Your task to perform on an android device: turn off wifi Image 0: 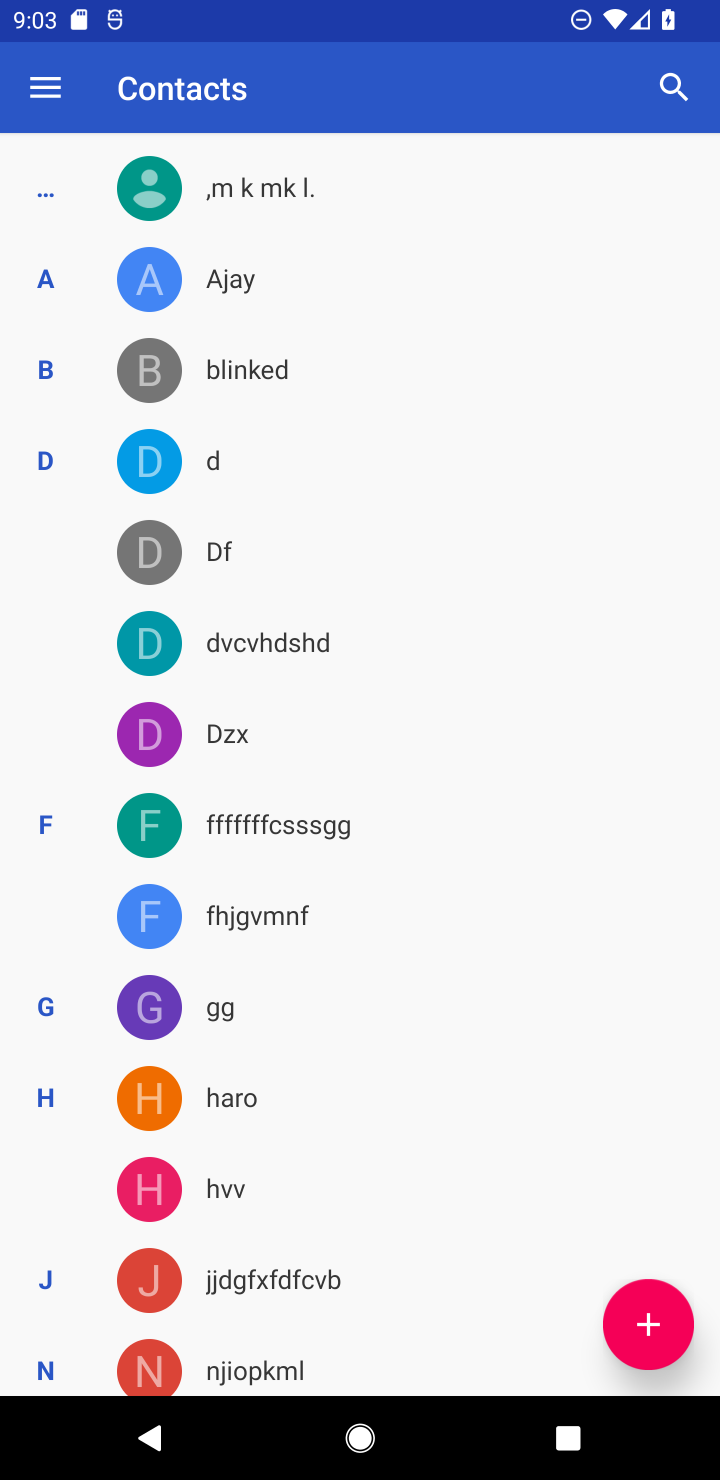
Step 0: press home button
Your task to perform on an android device: turn off wifi Image 1: 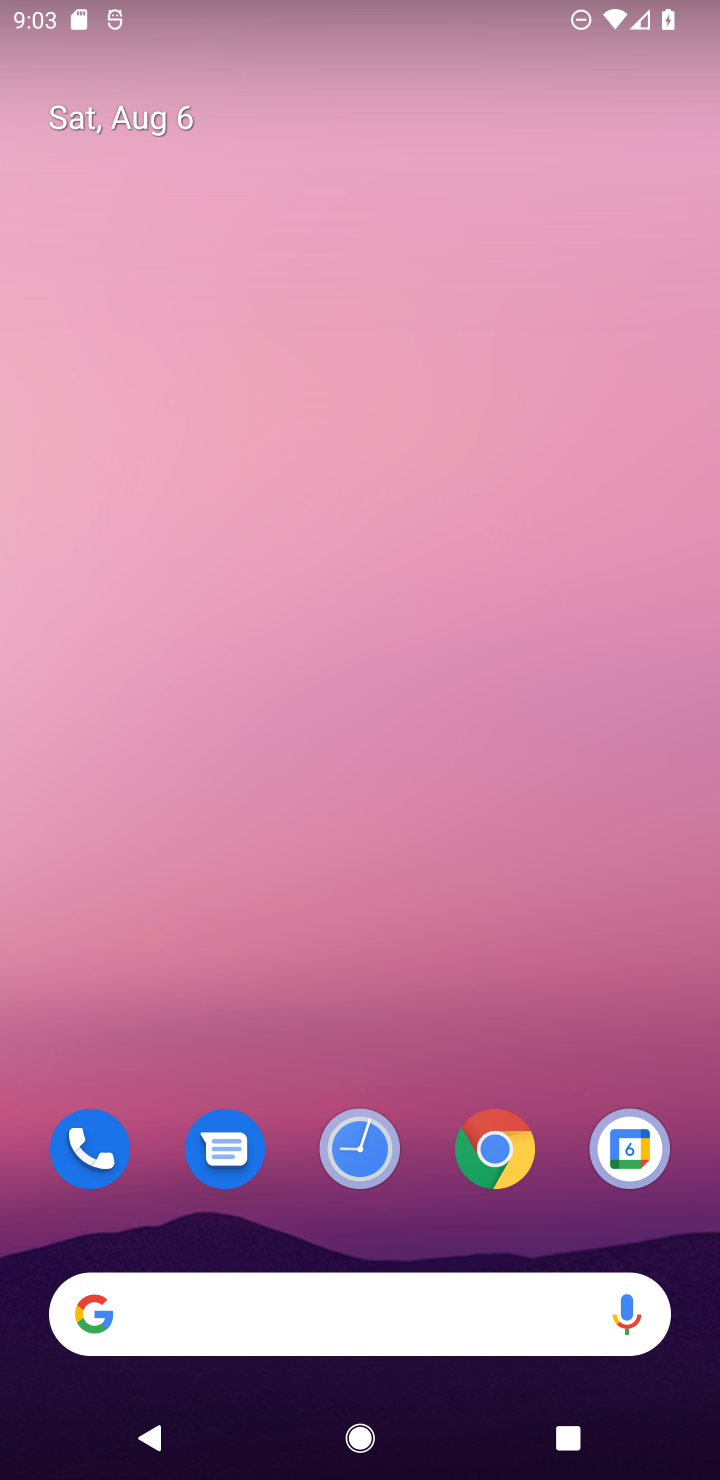
Step 1: drag from (283, 441) to (248, 59)
Your task to perform on an android device: turn off wifi Image 2: 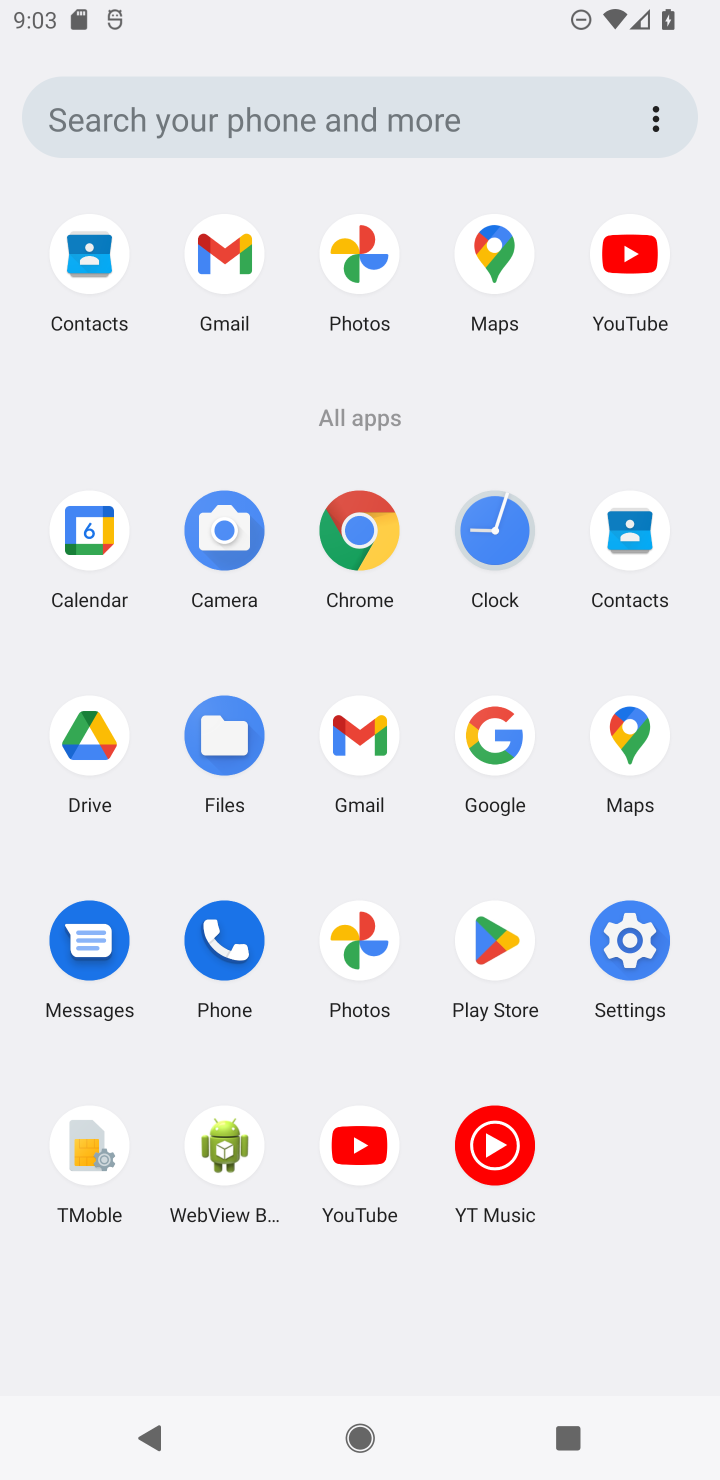
Step 2: drag from (248, 59) to (310, 517)
Your task to perform on an android device: turn off wifi Image 3: 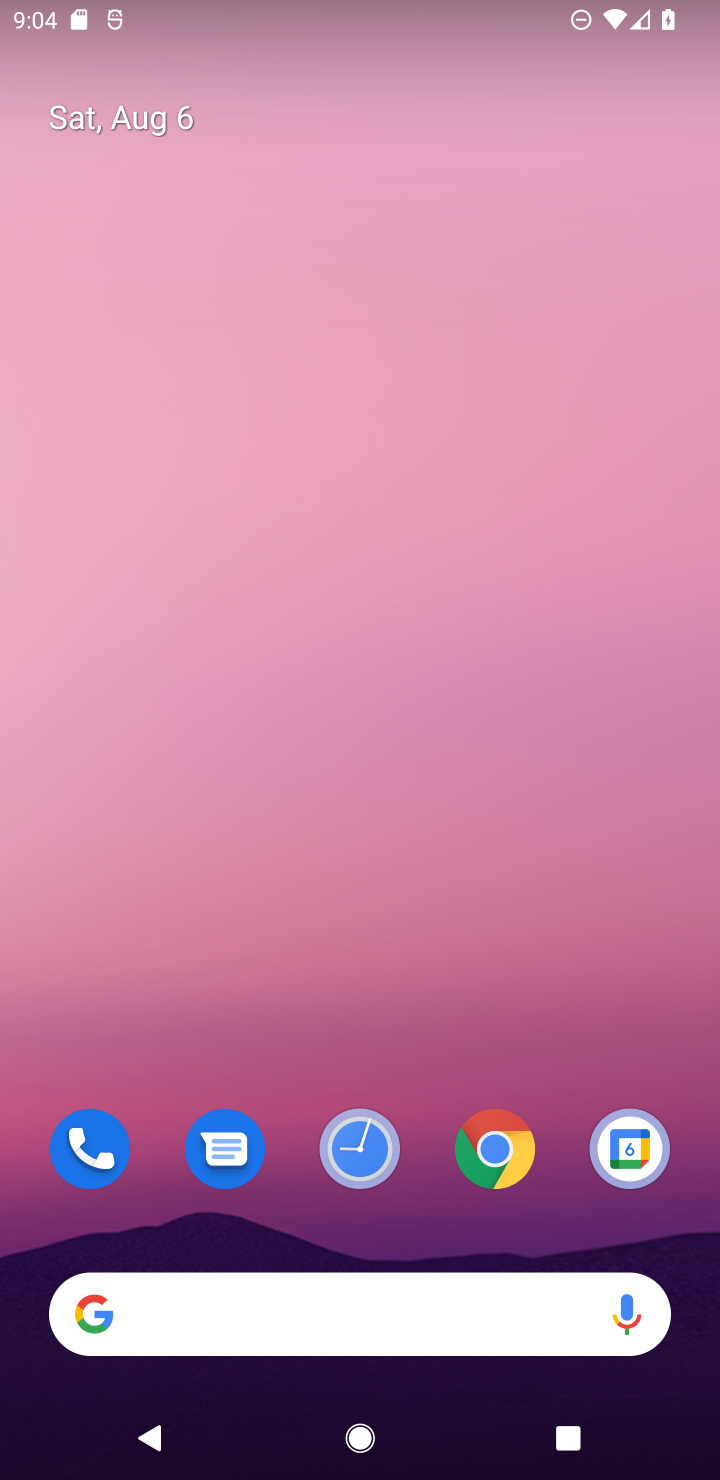
Step 3: drag from (305, 608) to (268, 191)
Your task to perform on an android device: turn off wifi Image 4: 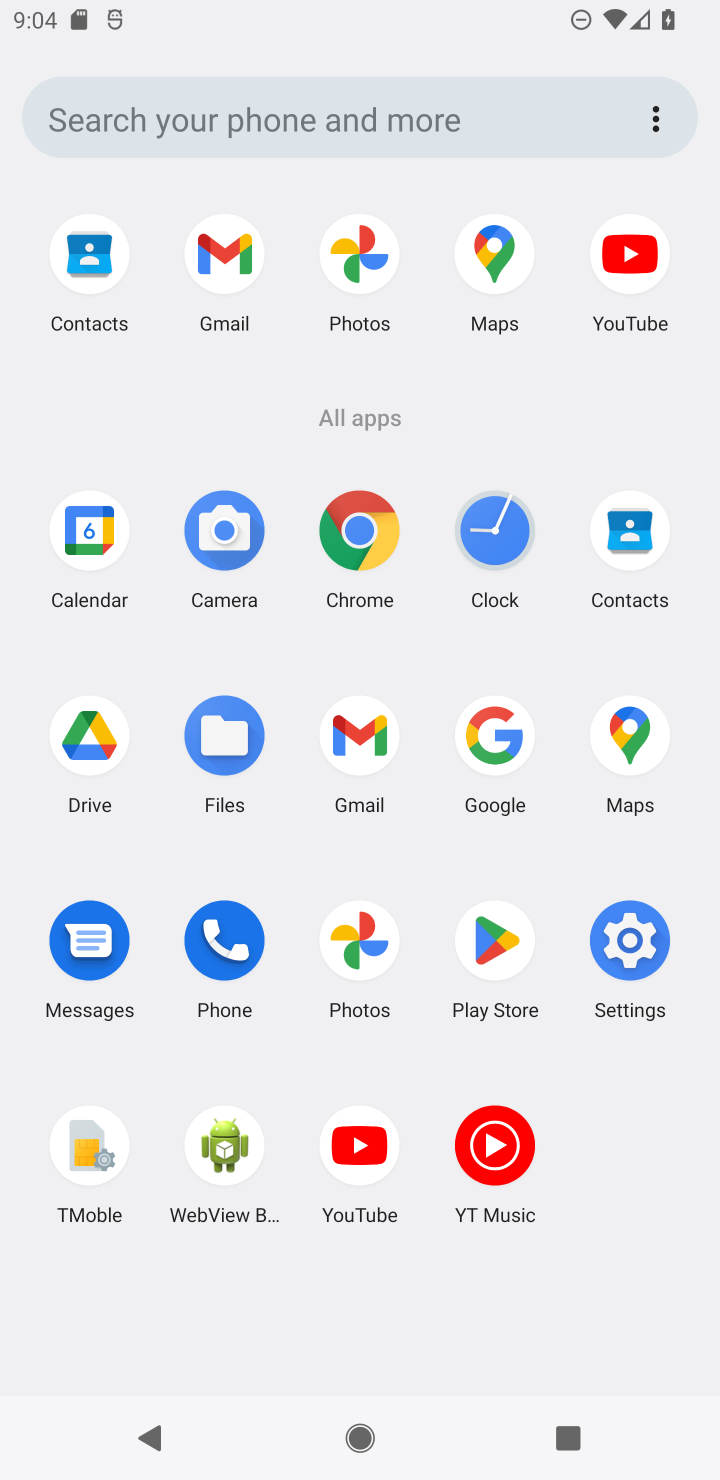
Step 4: click (610, 942)
Your task to perform on an android device: turn off wifi Image 5: 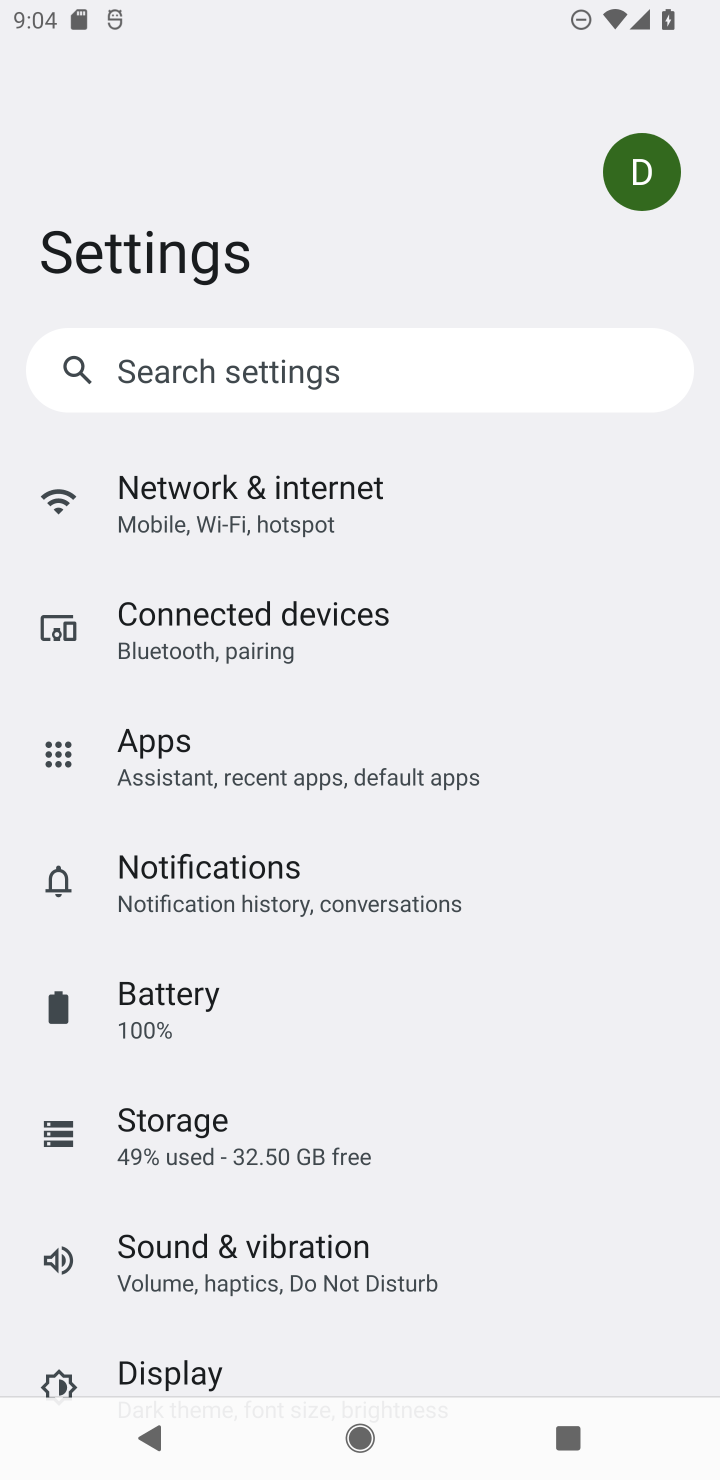
Step 5: click (328, 489)
Your task to perform on an android device: turn off wifi Image 6: 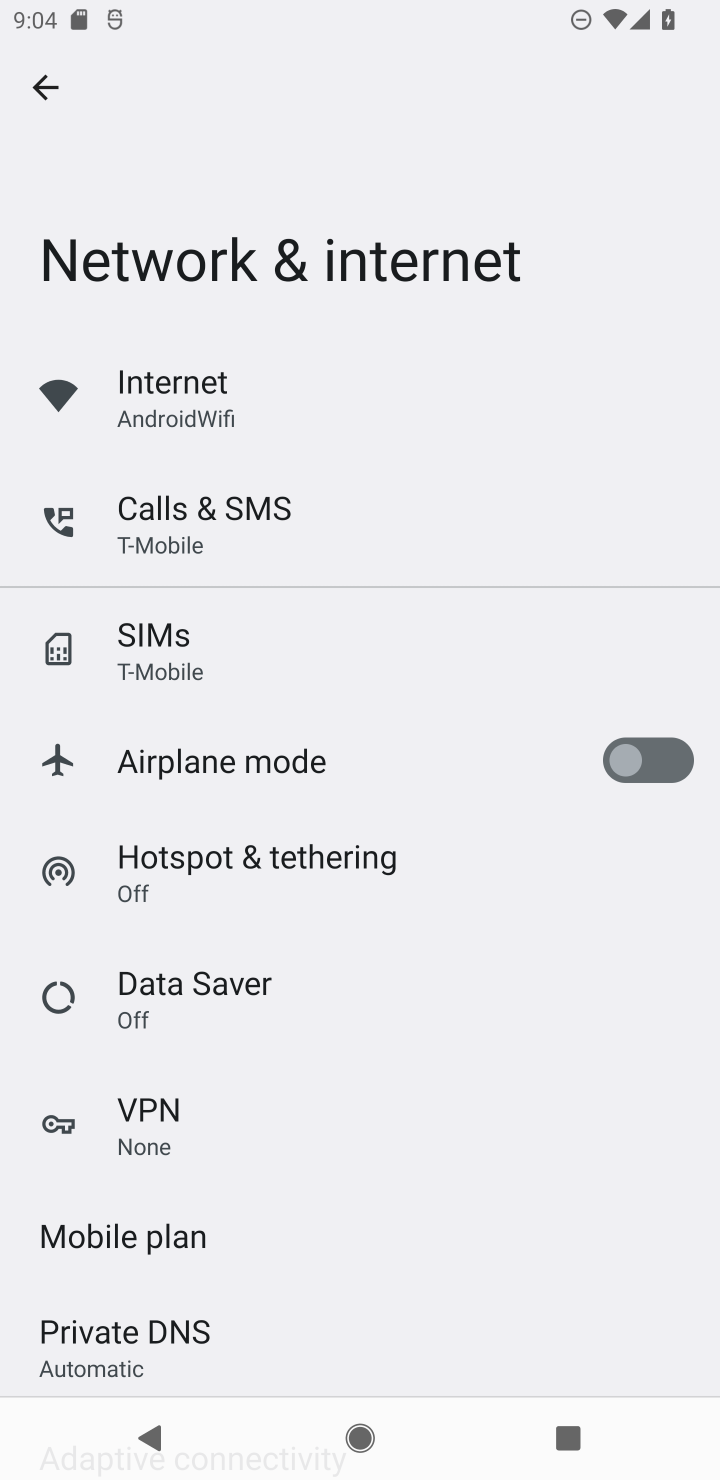
Step 6: click (327, 411)
Your task to perform on an android device: turn off wifi Image 7: 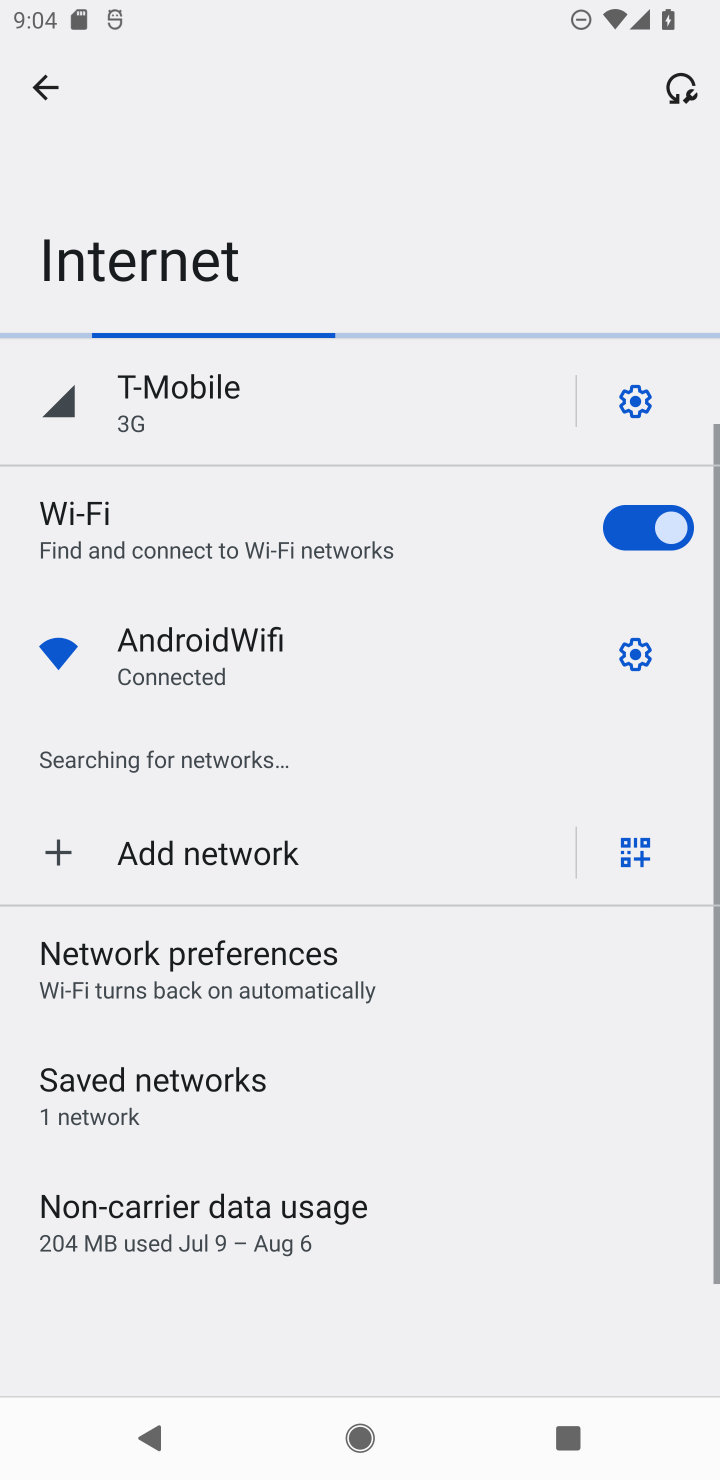
Step 7: click (645, 531)
Your task to perform on an android device: turn off wifi Image 8: 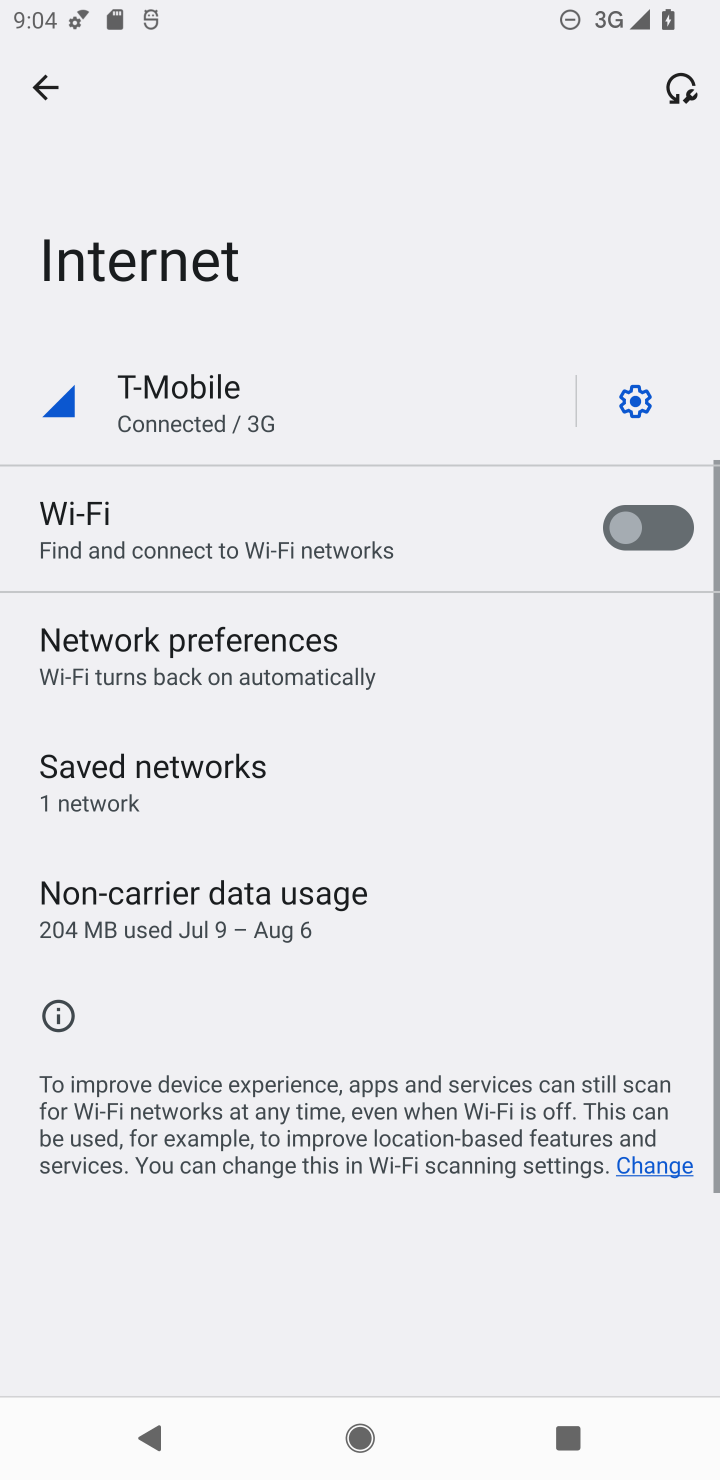
Step 8: task complete